Your task to perform on an android device: allow notifications from all sites in the chrome app Image 0: 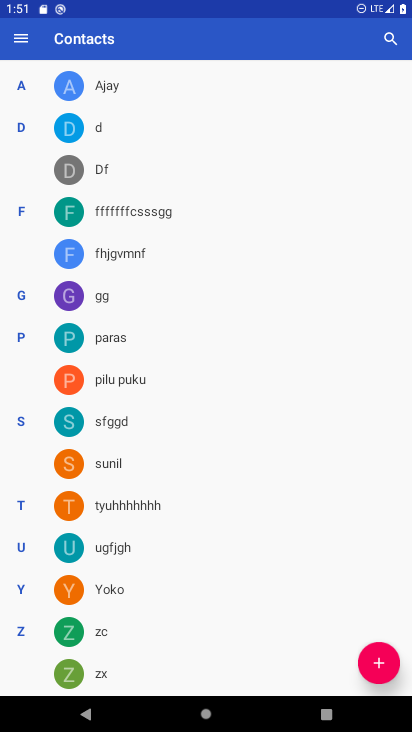
Step 0: press home button
Your task to perform on an android device: allow notifications from all sites in the chrome app Image 1: 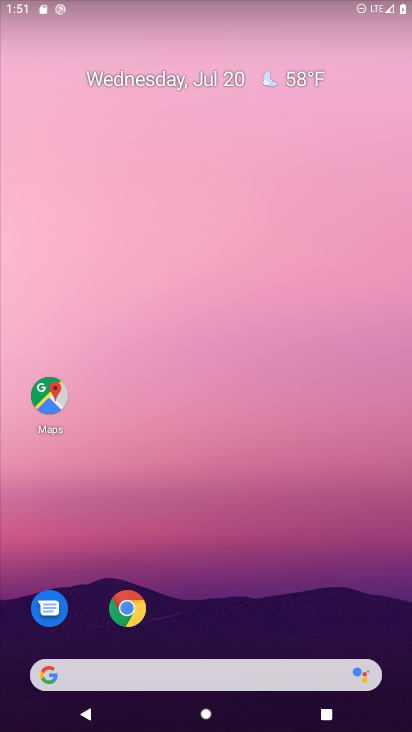
Step 1: click (124, 608)
Your task to perform on an android device: allow notifications from all sites in the chrome app Image 2: 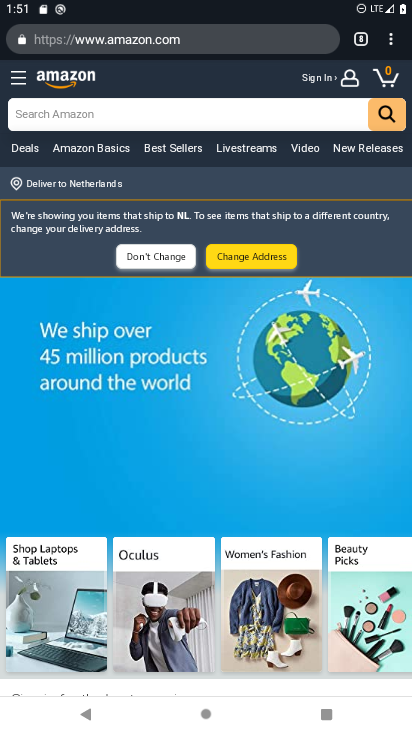
Step 2: click (391, 46)
Your task to perform on an android device: allow notifications from all sites in the chrome app Image 3: 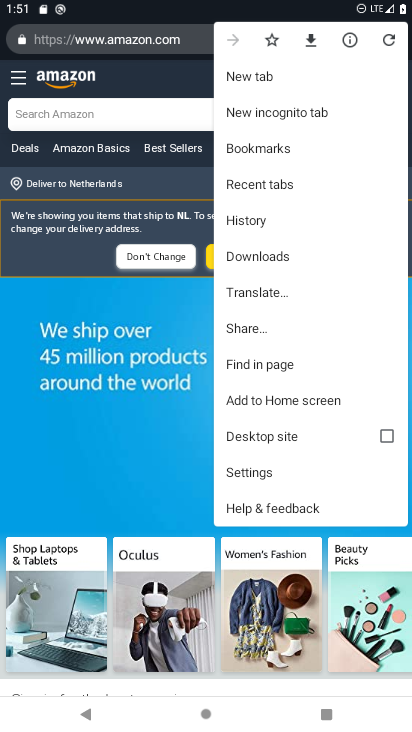
Step 3: click (240, 473)
Your task to perform on an android device: allow notifications from all sites in the chrome app Image 4: 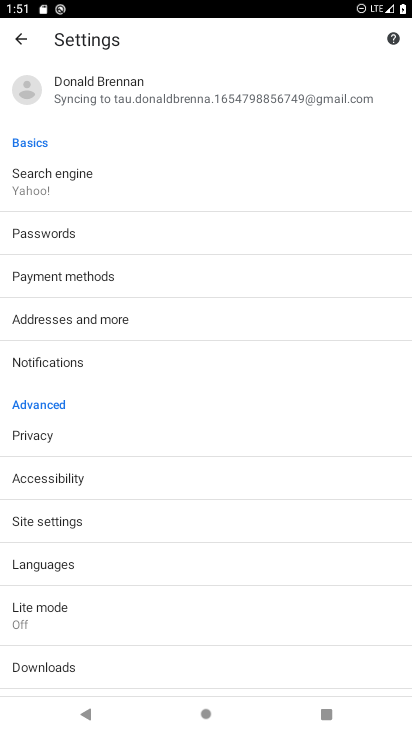
Step 4: click (52, 360)
Your task to perform on an android device: allow notifications from all sites in the chrome app Image 5: 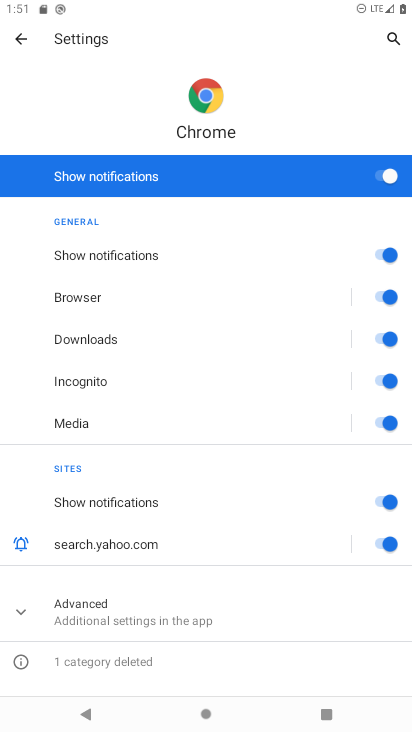
Step 5: task complete